Your task to perform on an android device: turn notification dots off Image 0: 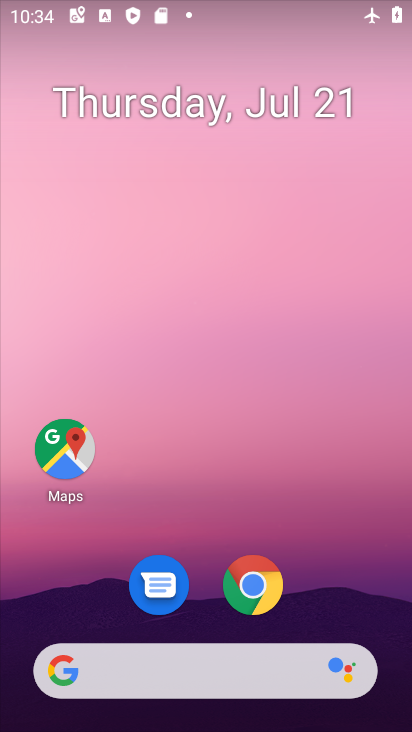
Step 0: drag from (331, 579) to (317, 24)
Your task to perform on an android device: turn notification dots off Image 1: 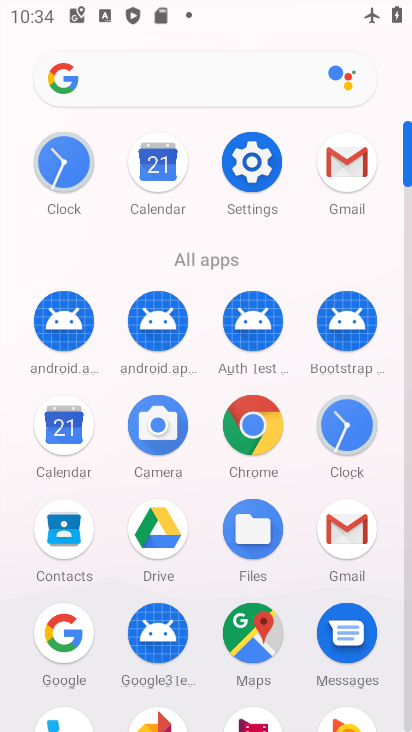
Step 1: click (251, 164)
Your task to perform on an android device: turn notification dots off Image 2: 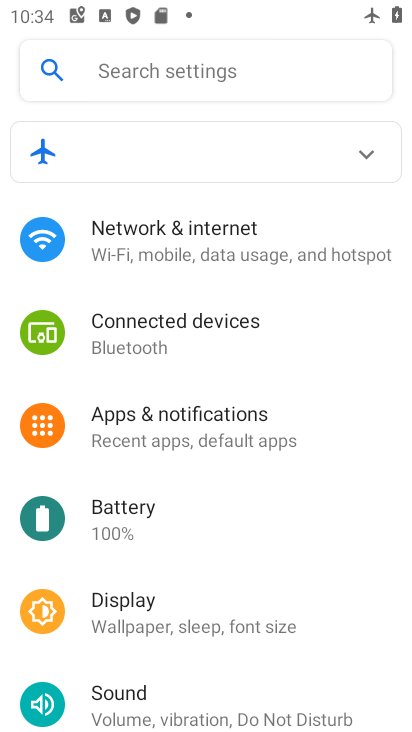
Step 2: click (241, 422)
Your task to perform on an android device: turn notification dots off Image 3: 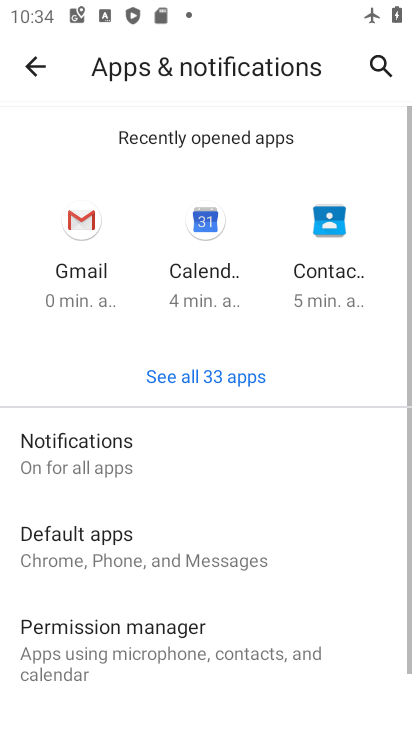
Step 3: drag from (236, 536) to (232, 0)
Your task to perform on an android device: turn notification dots off Image 4: 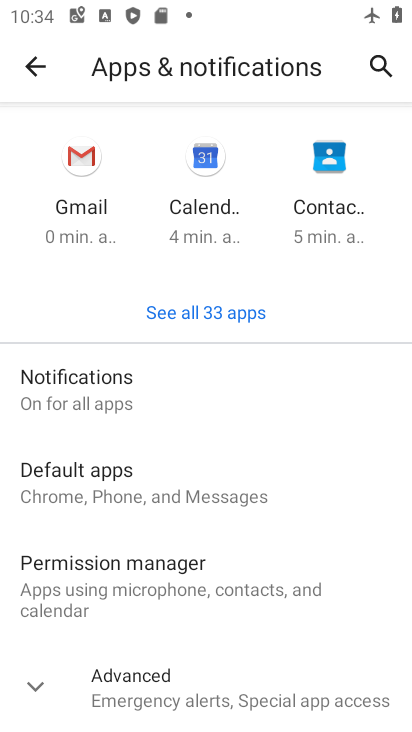
Step 4: click (40, 684)
Your task to perform on an android device: turn notification dots off Image 5: 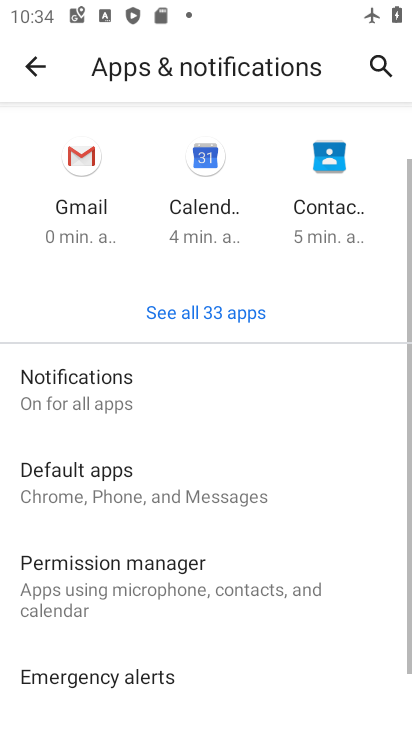
Step 5: drag from (234, 631) to (275, 221)
Your task to perform on an android device: turn notification dots off Image 6: 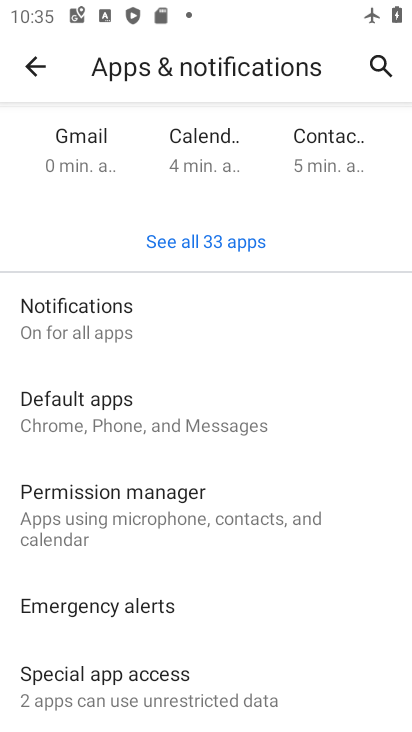
Step 6: click (119, 307)
Your task to perform on an android device: turn notification dots off Image 7: 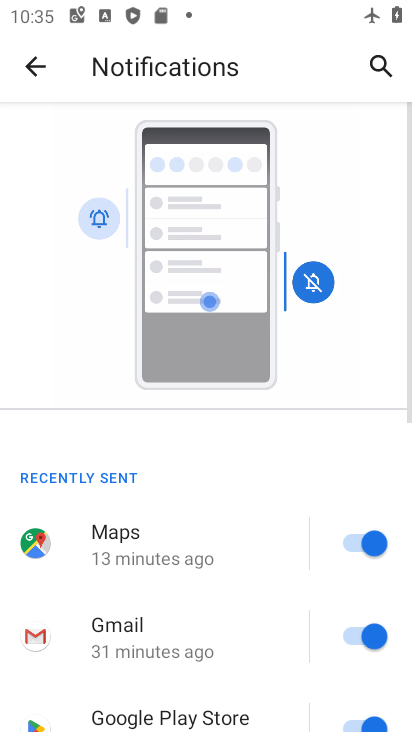
Step 7: drag from (204, 687) to (229, 225)
Your task to perform on an android device: turn notification dots off Image 8: 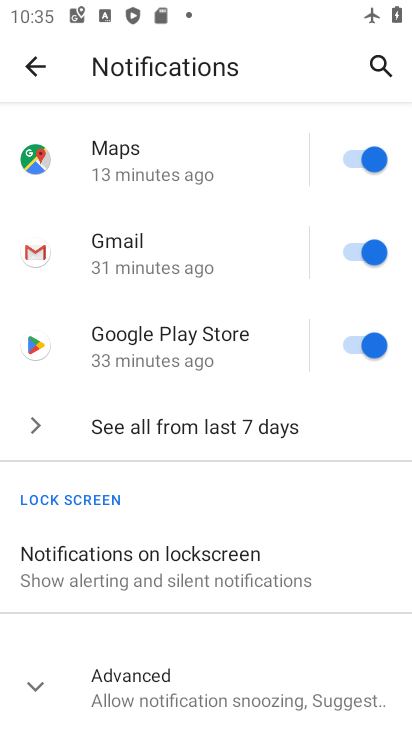
Step 8: click (36, 682)
Your task to perform on an android device: turn notification dots off Image 9: 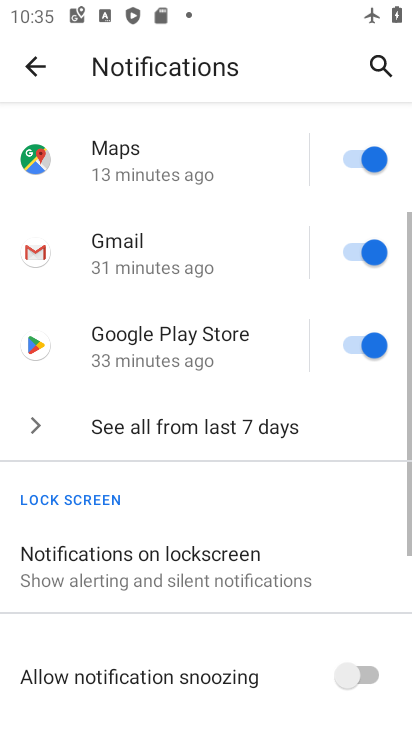
Step 9: drag from (230, 631) to (261, 242)
Your task to perform on an android device: turn notification dots off Image 10: 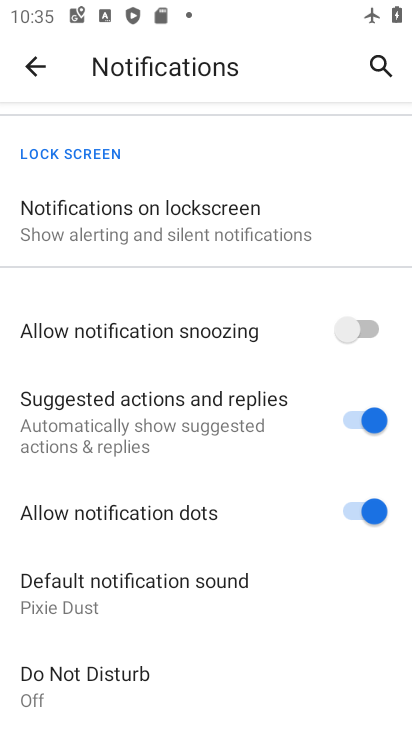
Step 10: click (360, 510)
Your task to perform on an android device: turn notification dots off Image 11: 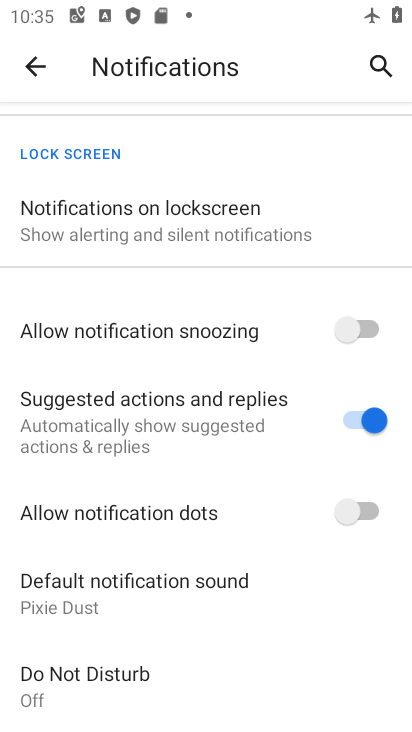
Step 11: task complete